Your task to perform on an android device: Open the web browser Image 0: 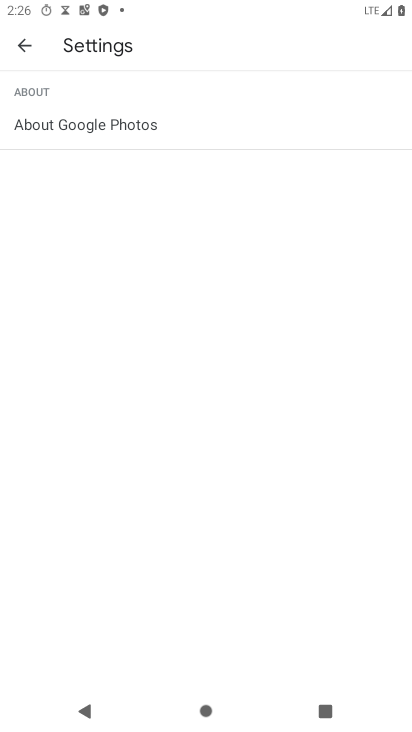
Step 0: press home button
Your task to perform on an android device: Open the web browser Image 1: 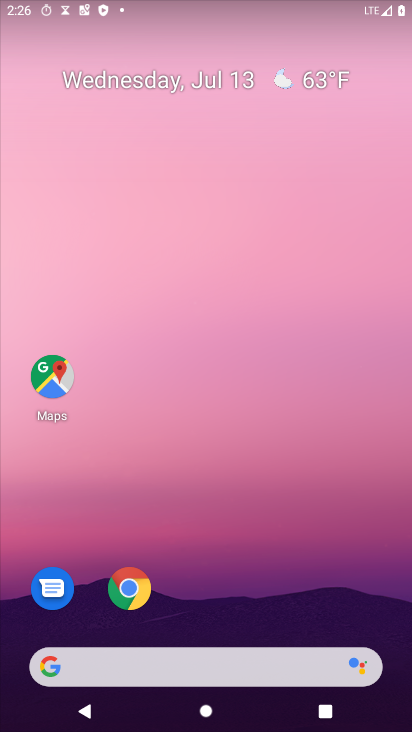
Step 1: click (125, 589)
Your task to perform on an android device: Open the web browser Image 2: 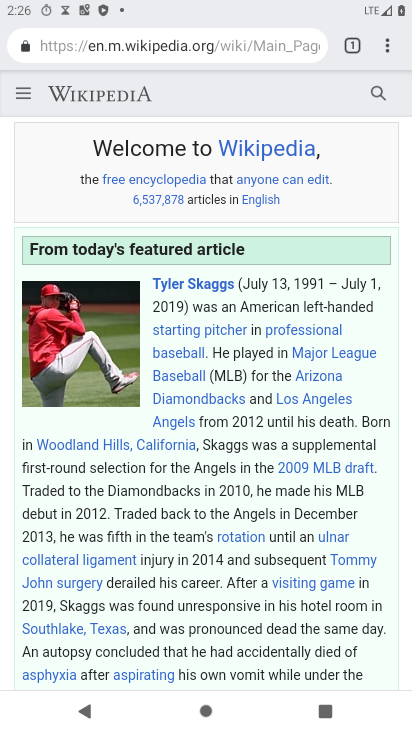
Step 2: task complete